Your task to perform on an android device: open wifi settings Image 0: 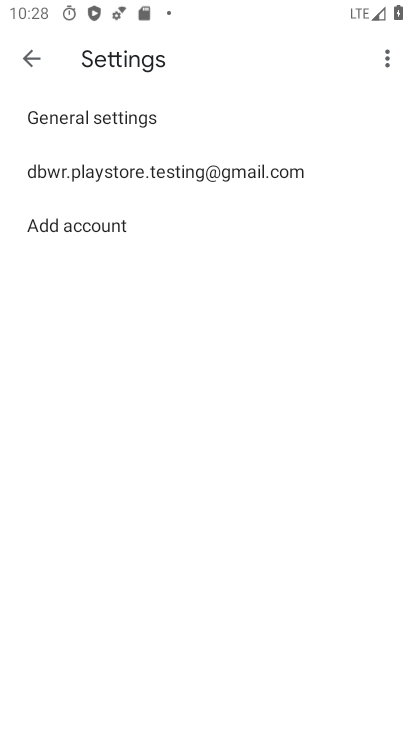
Step 0: press home button
Your task to perform on an android device: open wifi settings Image 1: 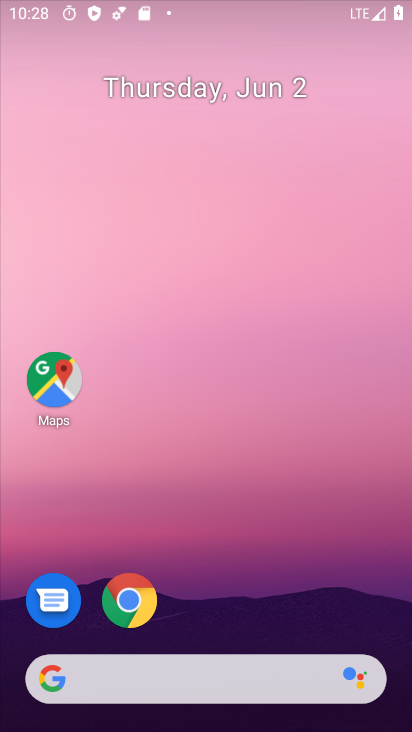
Step 1: drag from (241, 589) to (215, 59)
Your task to perform on an android device: open wifi settings Image 2: 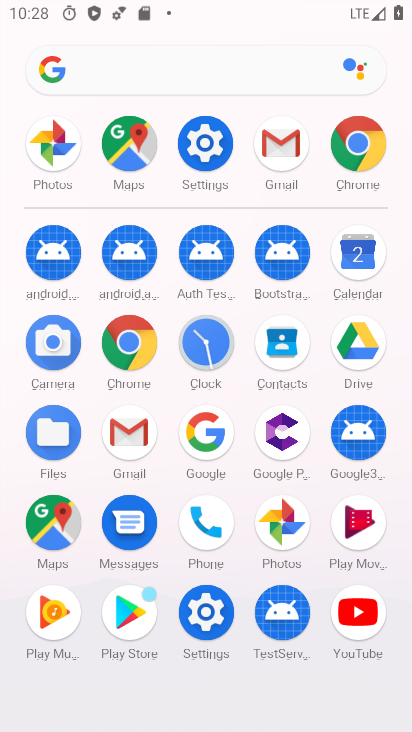
Step 2: click (201, 138)
Your task to perform on an android device: open wifi settings Image 3: 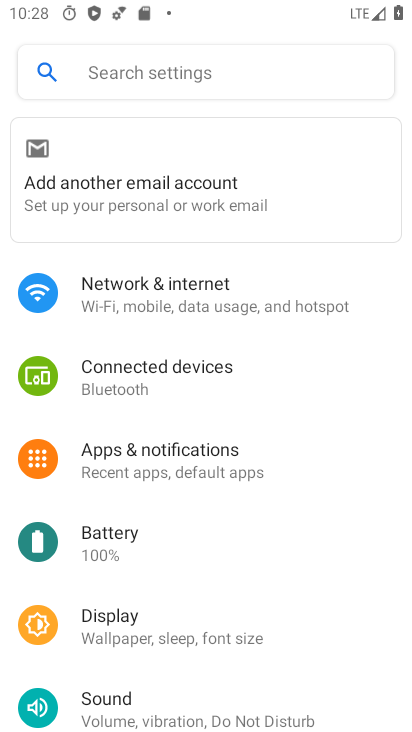
Step 3: click (213, 301)
Your task to perform on an android device: open wifi settings Image 4: 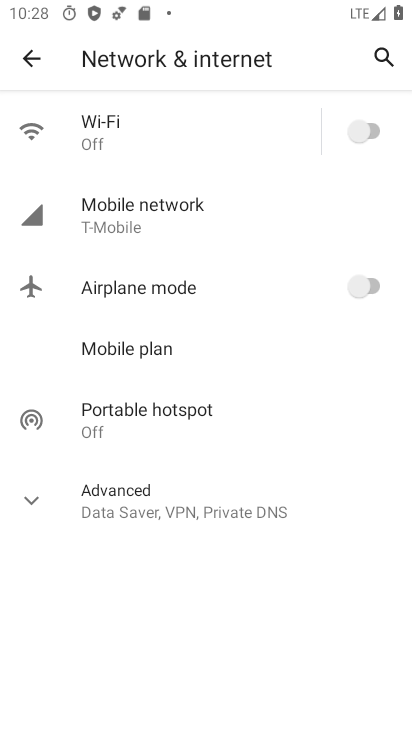
Step 4: click (161, 140)
Your task to perform on an android device: open wifi settings Image 5: 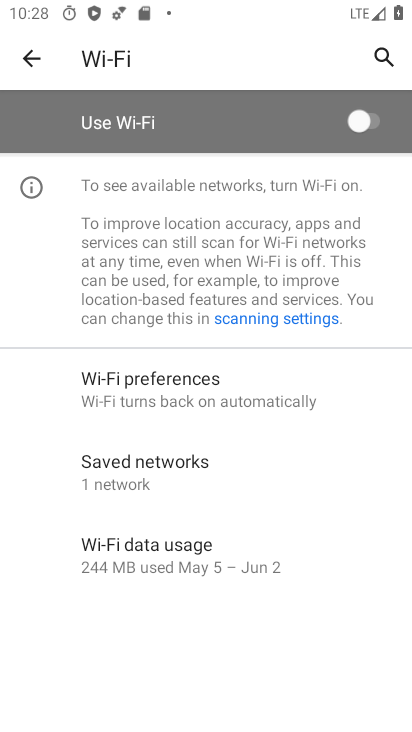
Step 5: click (375, 119)
Your task to perform on an android device: open wifi settings Image 6: 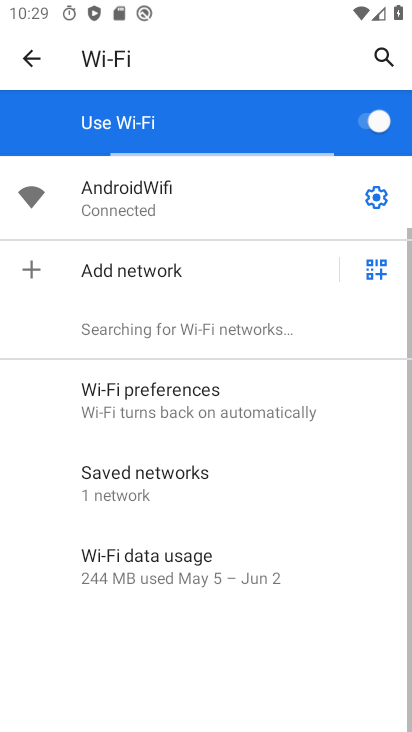
Step 6: click (361, 198)
Your task to perform on an android device: open wifi settings Image 7: 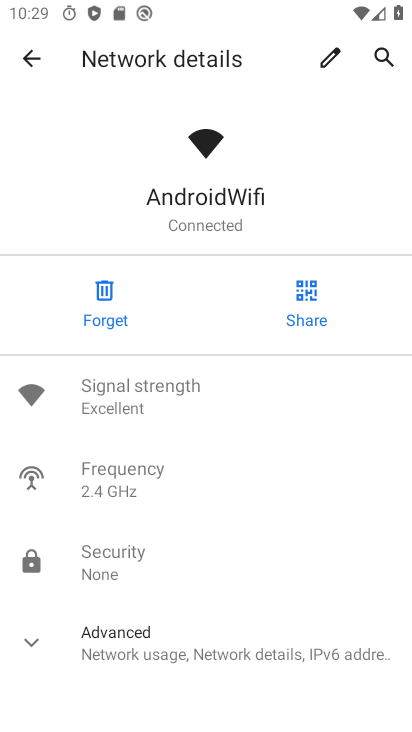
Step 7: task complete